Your task to perform on an android device: toggle notifications settings in the gmail app Image 0: 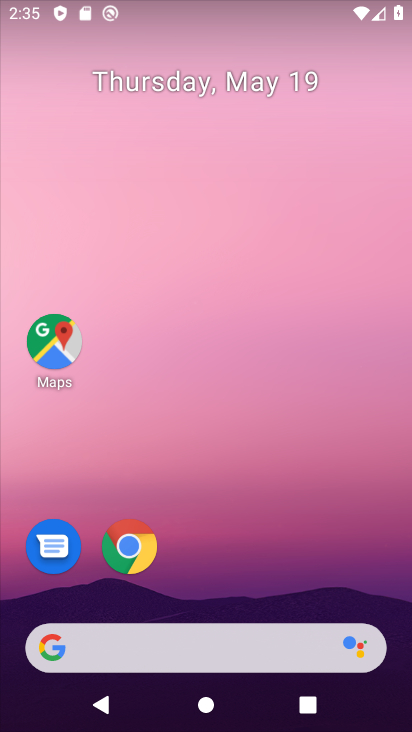
Step 0: drag from (167, 650) to (289, 211)
Your task to perform on an android device: toggle notifications settings in the gmail app Image 1: 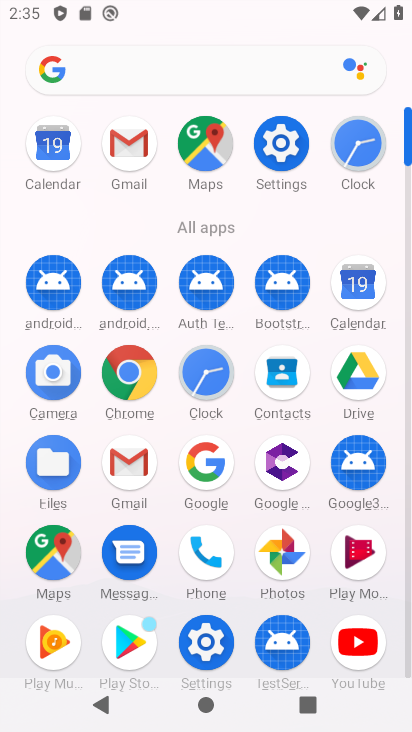
Step 1: click (134, 153)
Your task to perform on an android device: toggle notifications settings in the gmail app Image 2: 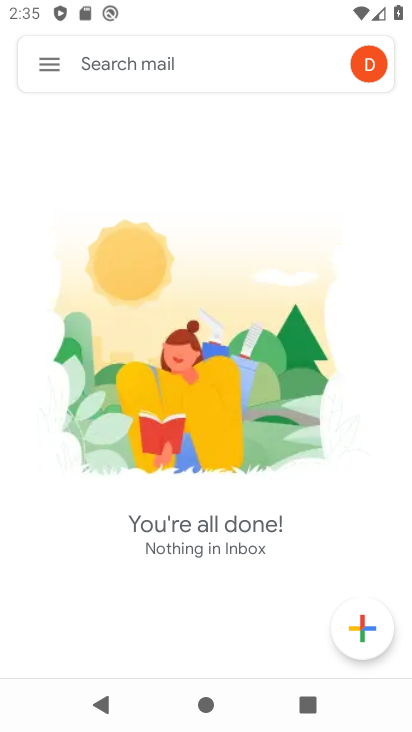
Step 2: click (53, 58)
Your task to perform on an android device: toggle notifications settings in the gmail app Image 3: 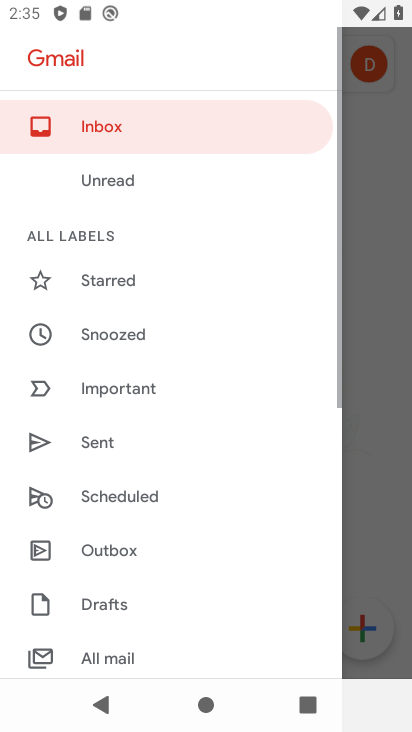
Step 3: drag from (168, 620) to (312, 179)
Your task to perform on an android device: toggle notifications settings in the gmail app Image 4: 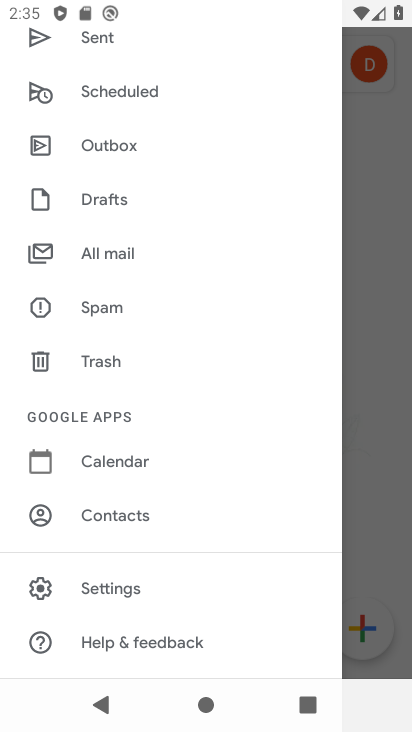
Step 4: click (124, 593)
Your task to perform on an android device: toggle notifications settings in the gmail app Image 5: 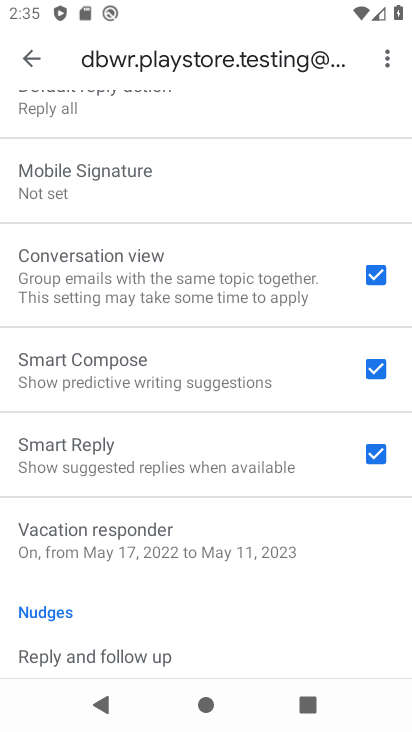
Step 5: drag from (238, 148) to (228, 567)
Your task to perform on an android device: toggle notifications settings in the gmail app Image 6: 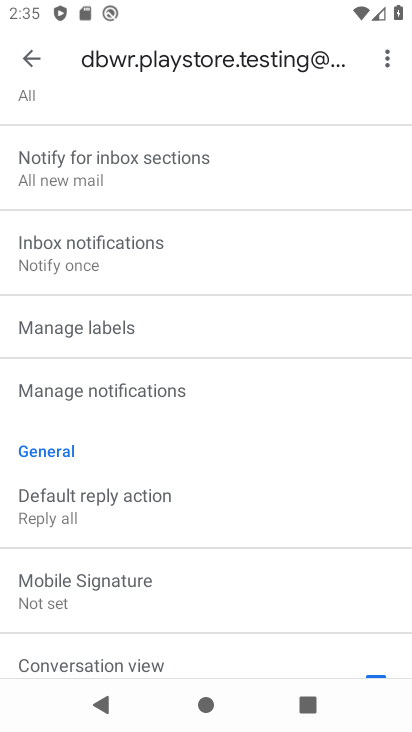
Step 6: drag from (263, 199) to (245, 514)
Your task to perform on an android device: toggle notifications settings in the gmail app Image 7: 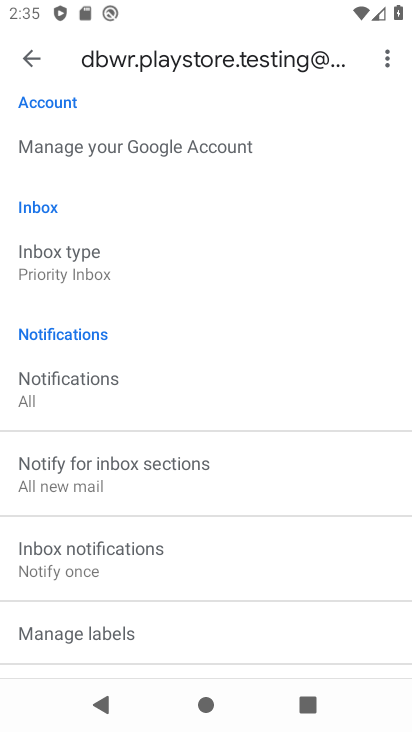
Step 7: click (90, 385)
Your task to perform on an android device: toggle notifications settings in the gmail app Image 8: 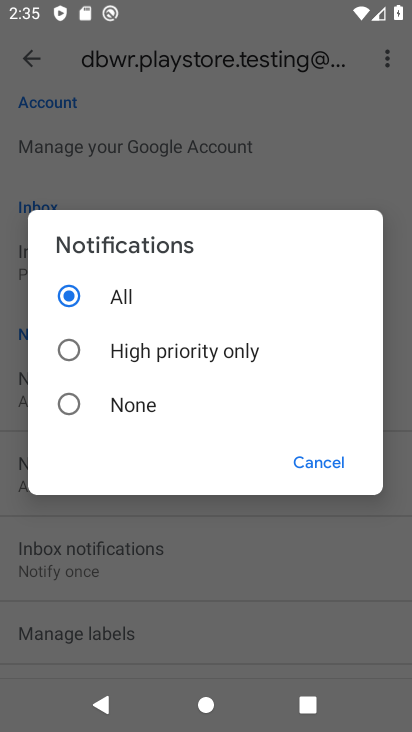
Step 8: click (76, 399)
Your task to perform on an android device: toggle notifications settings in the gmail app Image 9: 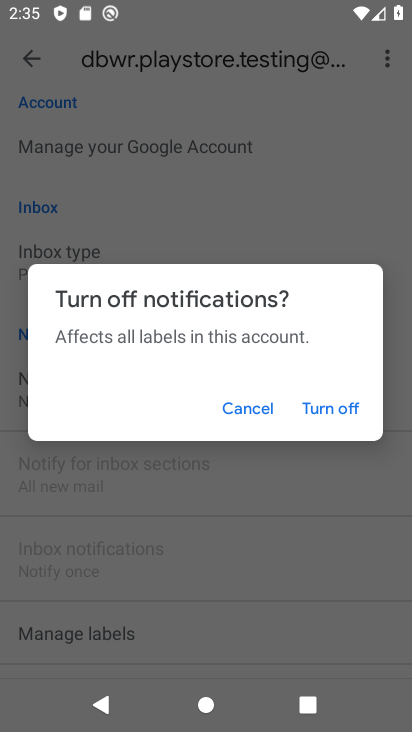
Step 9: click (339, 410)
Your task to perform on an android device: toggle notifications settings in the gmail app Image 10: 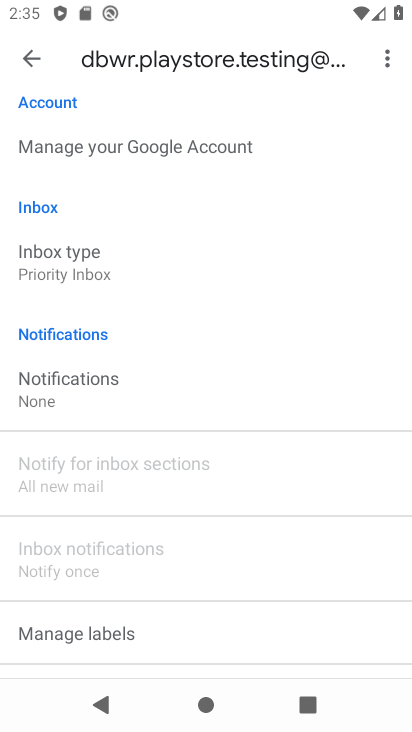
Step 10: task complete